Your task to perform on an android device: Play the last video I watched on Youtube Image 0: 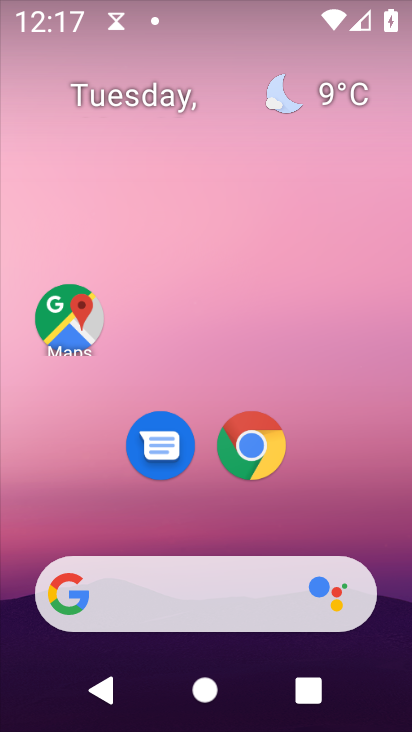
Step 0: drag from (317, 605) to (283, 152)
Your task to perform on an android device: Play the last video I watched on Youtube Image 1: 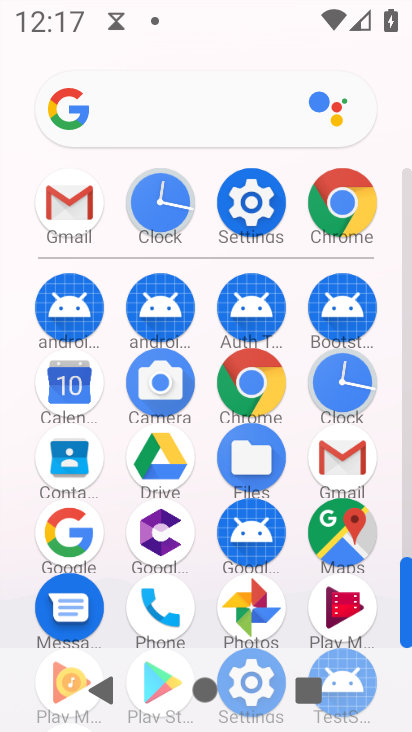
Step 1: drag from (295, 588) to (273, 210)
Your task to perform on an android device: Play the last video I watched on Youtube Image 2: 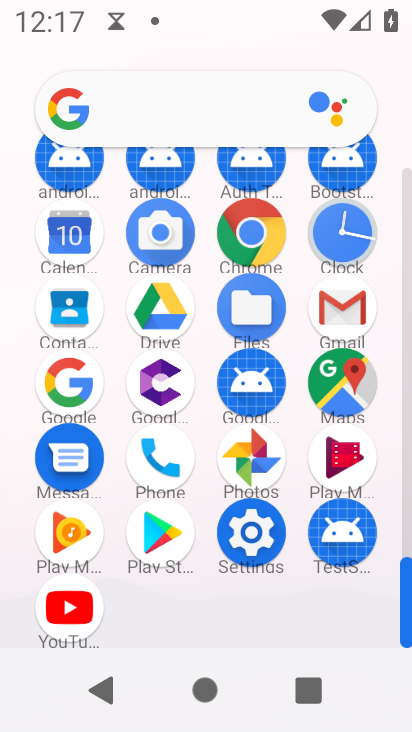
Step 2: click (83, 622)
Your task to perform on an android device: Play the last video I watched on Youtube Image 3: 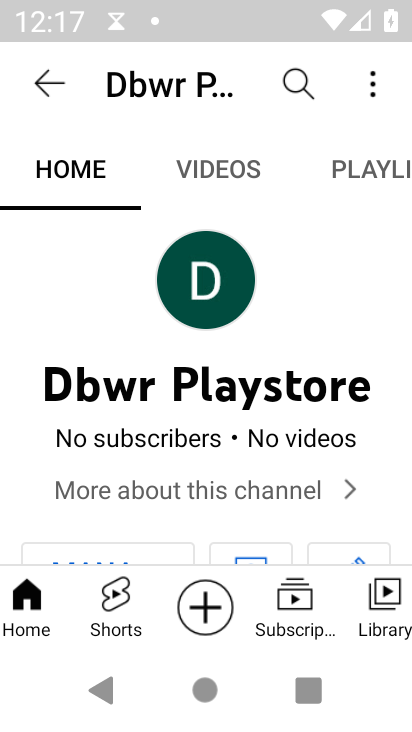
Step 3: click (386, 609)
Your task to perform on an android device: Play the last video I watched on Youtube Image 4: 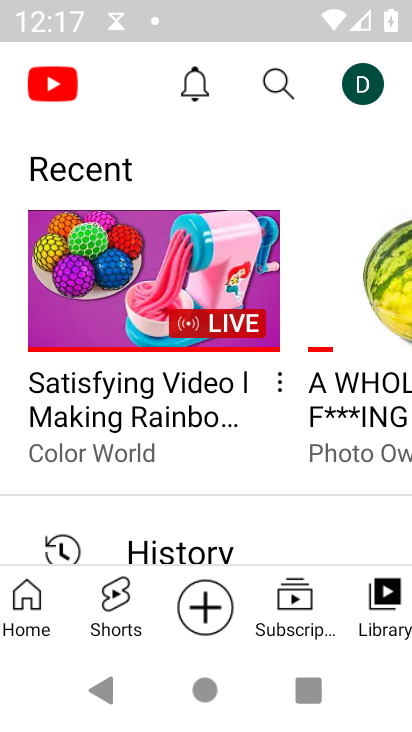
Step 4: click (199, 327)
Your task to perform on an android device: Play the last video I watched on Youtube Image 5: 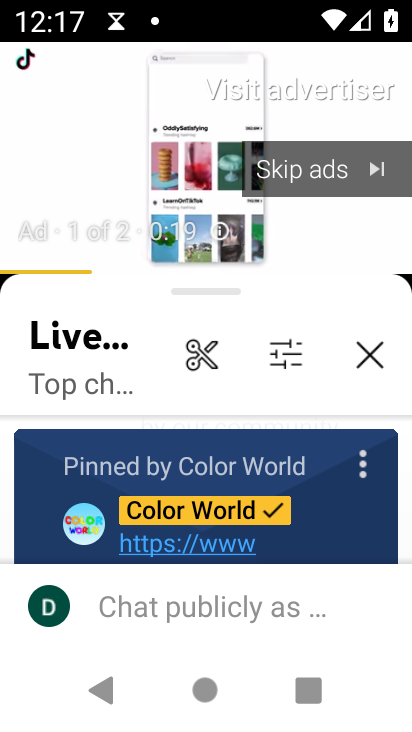
Step 5: task complete